Your task to perform on an android device: turn on location history Image 0: 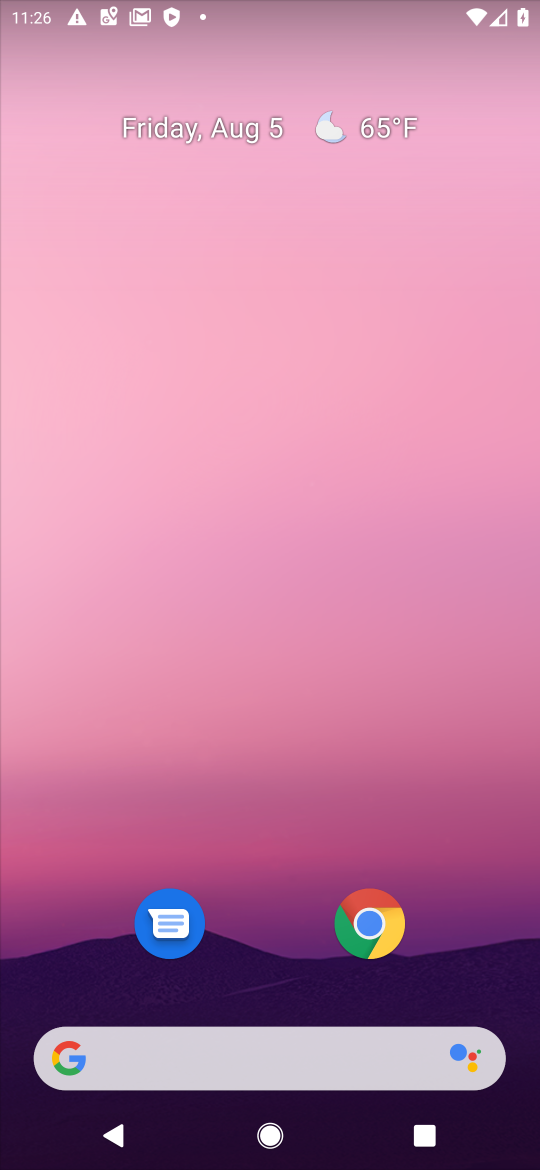
Step 0: drag from (407, 1067) to (350, 162)
Your task to perform on an android device: turn on location history Image 1: 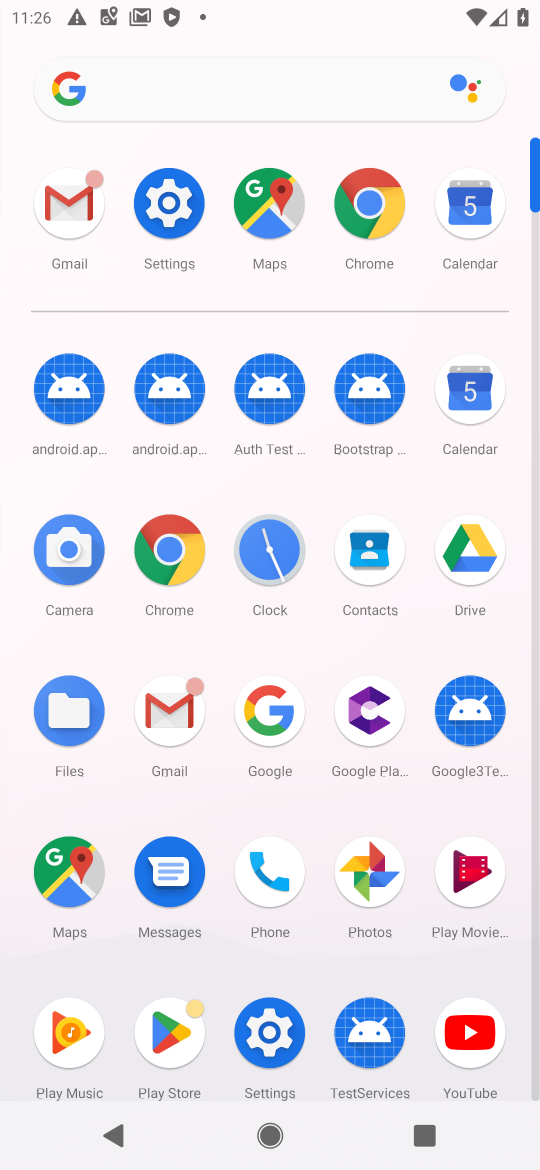
Step 1: click (135, 176)
Your task to perform on an android device: turn on location history Image 2: 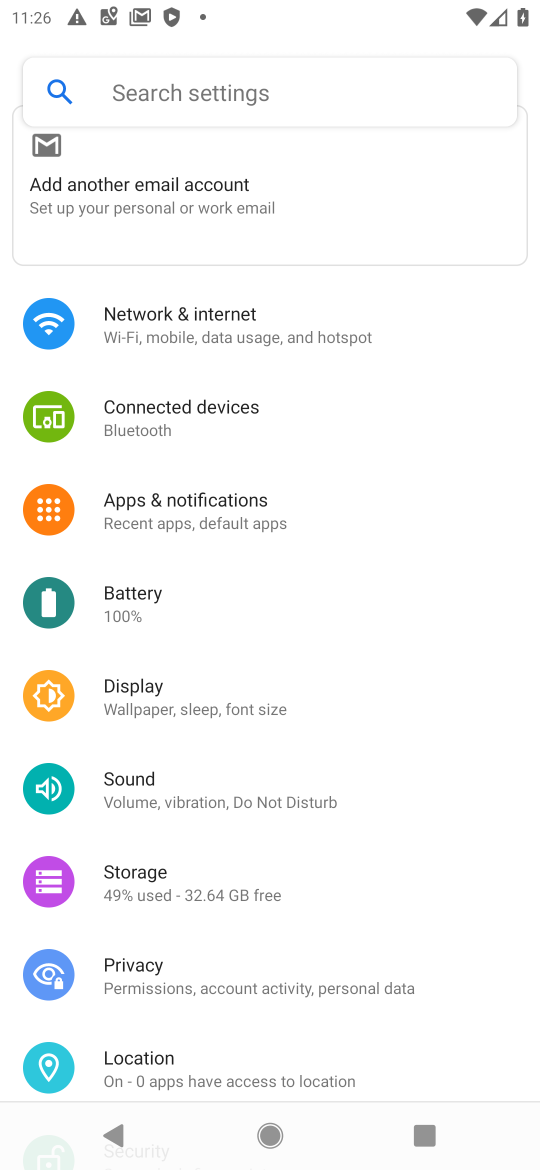
Step 2: click (298, 1076)
Your task to perform on an android device: turn on location history Image 3: 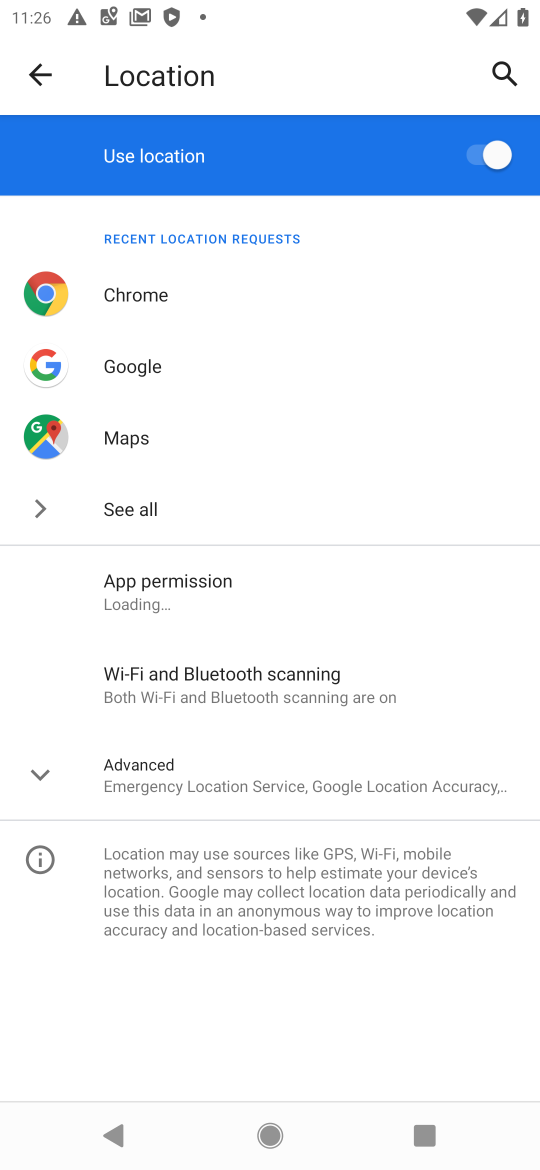
Step 3: click (204, 758)
Your task to perform on an android device: turn on location history Image 4: 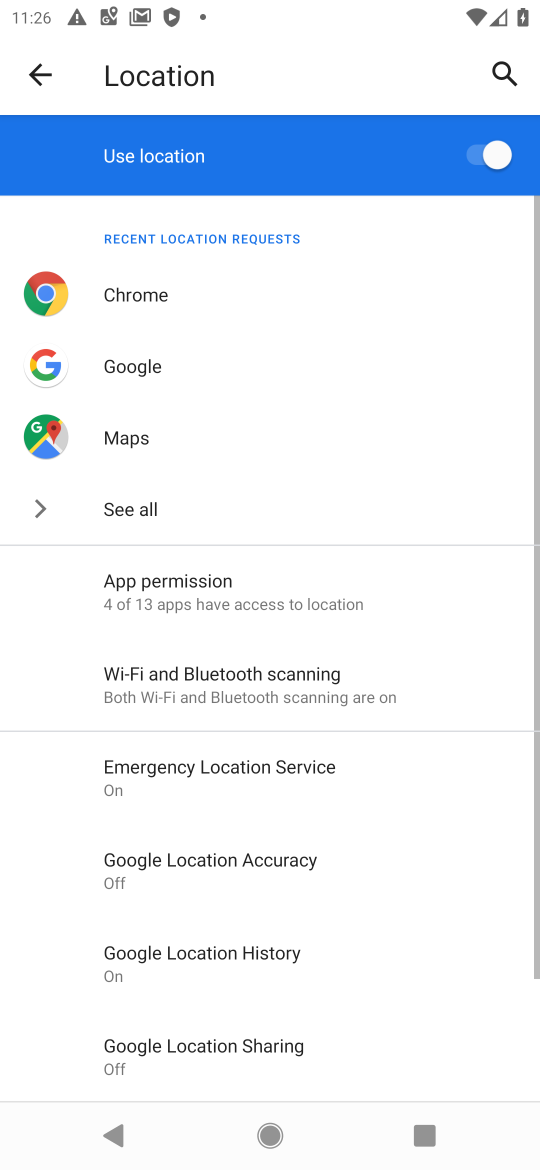
Step 4: click (258, 968)
Your task to perform on an android device: turn on location history Image 5: 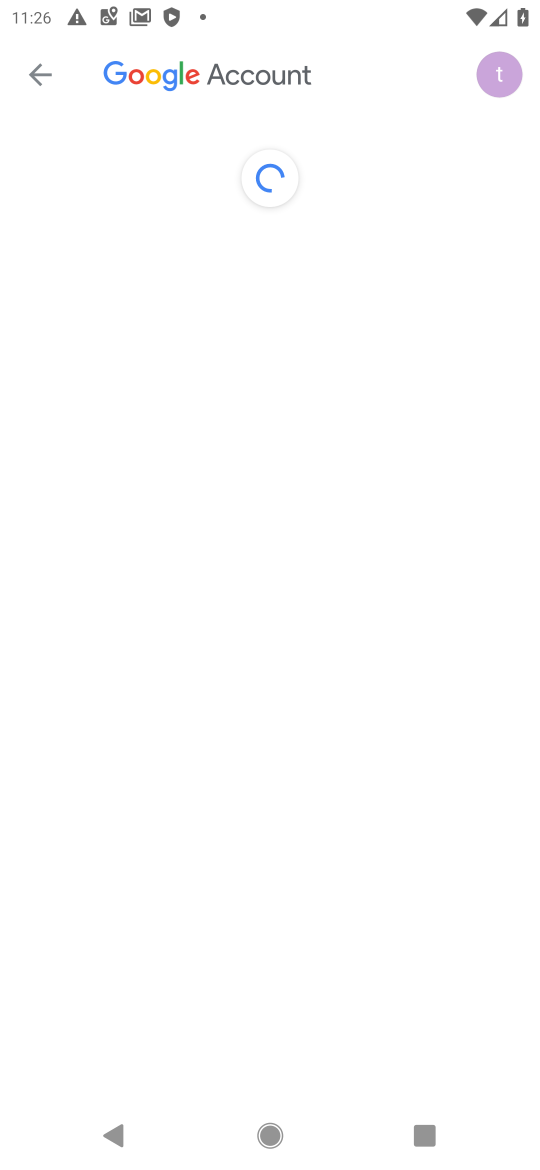
Step 5: task complete